Your task to perform on an android device: Go to Yahoo.com Image 0: 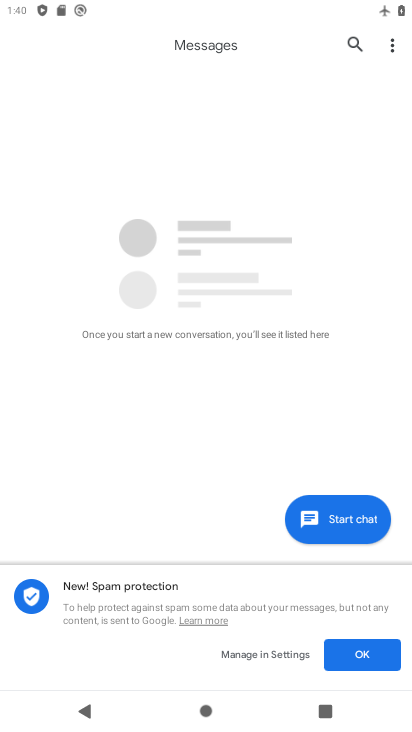
Step 0: press home button
Your task to perform on an android device: Go to Yahoo.com Image 1: 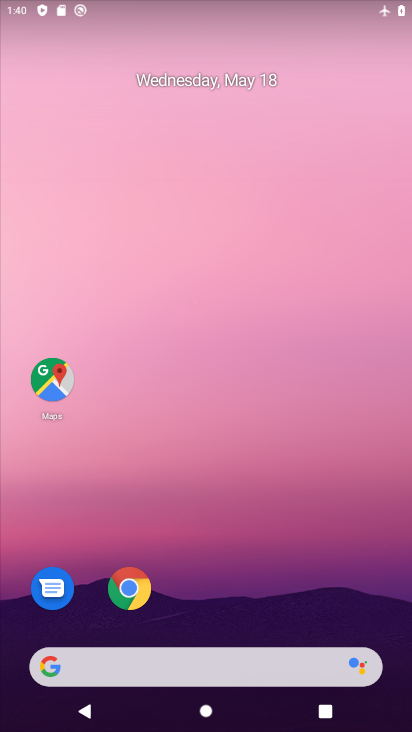
Step 1: click (124, 578)
Your task to perform on an android device: Go to Yahoo.com Image 2: 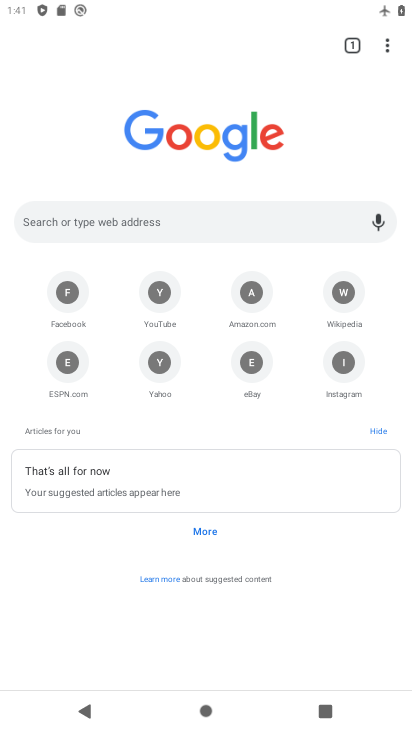
Step 2: click (148, 364)
Your task to perform on an android device: Go to Yahoo.com Image 3: 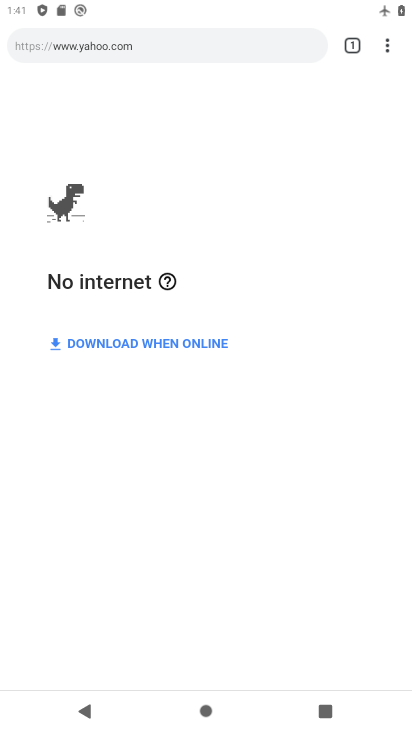
Step 3: click (72, 713)
Your task to perform on an android device: Go to Yahoo.com Image 4: 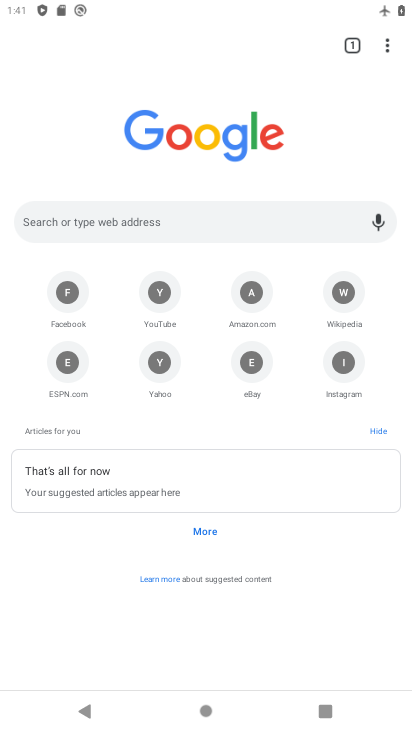
Step 4: click (169, 367)
Your task to perform on an android device: Go to Yahoo.com Image 5: 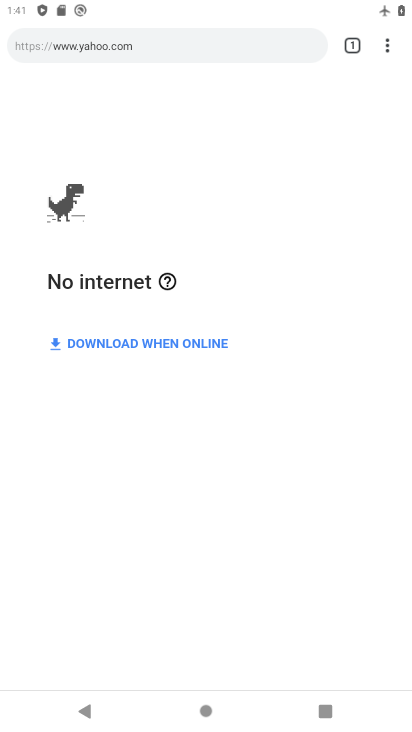
Step 5: task complete